Your task to perform on an android device: turn pop-ups on in chrome Image 0: 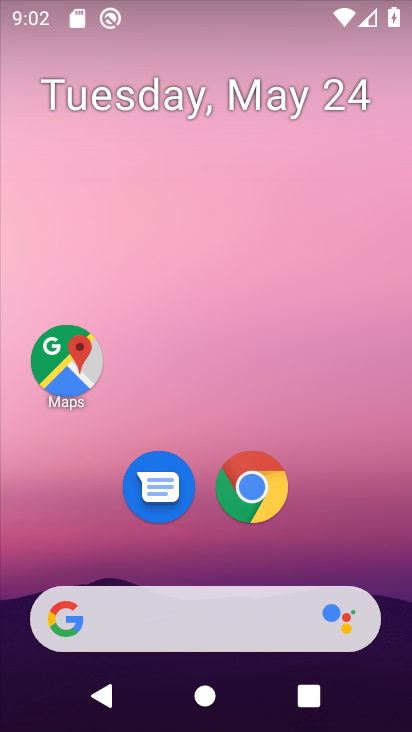
Step 0: click (246, 495)
Your task to perform on an android device: turn pop-ups on in chrome Image 1: 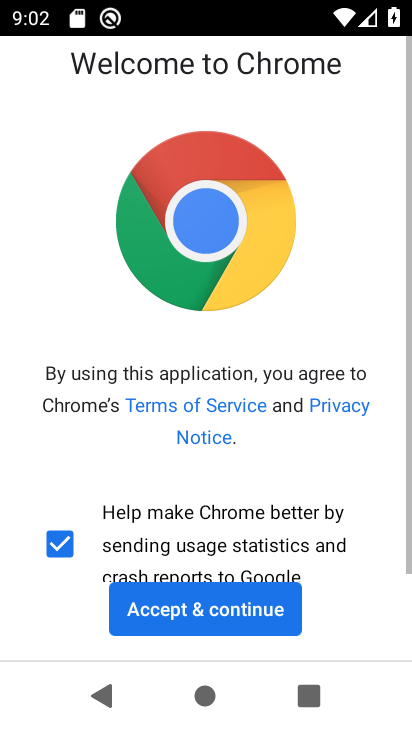
Step 1: click (211, 599)
Your task to perform on an android device: turn pop-ups on in chrome Image 2: 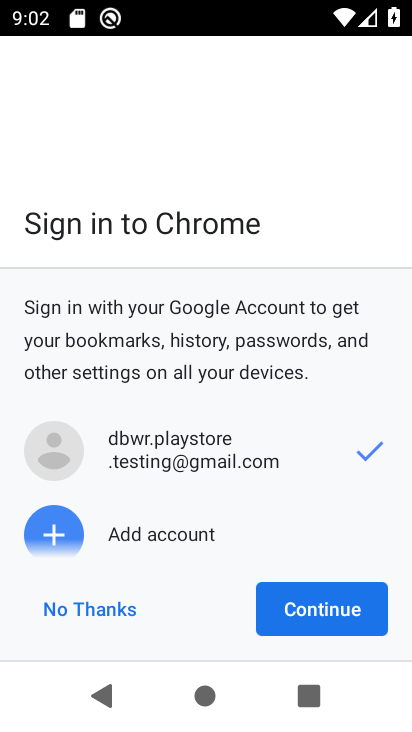
Step 2: click (317, 606)
Your task to perform on an android device: turn pop-ups on in chrome Image 3: 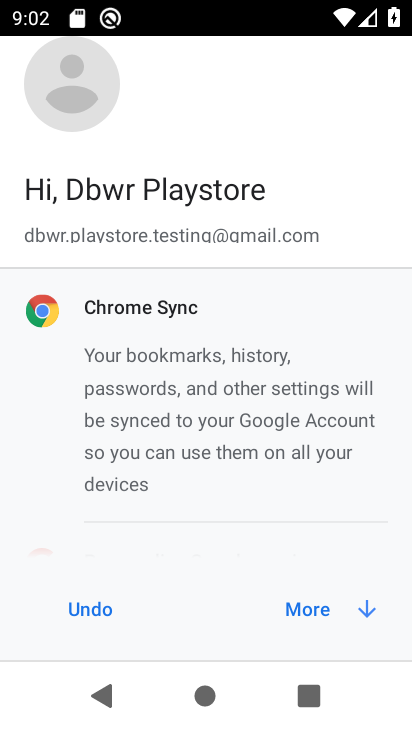
Step 3: click (317, 606)
Your task to perform on an android device: turn pop-ups on in chrome Image 4: 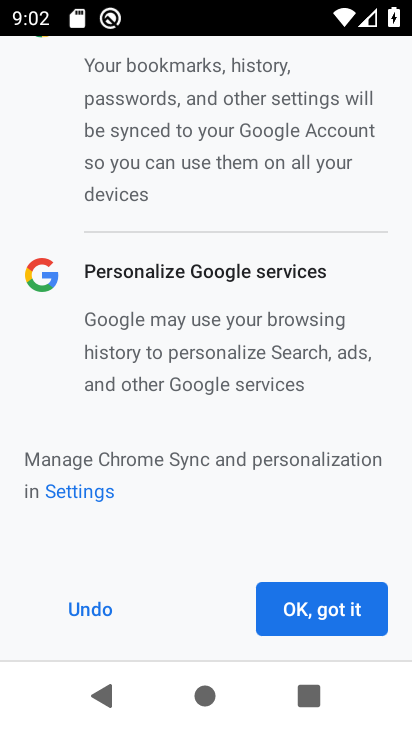
Step 4: click (317, 606)
Your task to perform on an android device: turn pop-ups on in chrome Image 5: 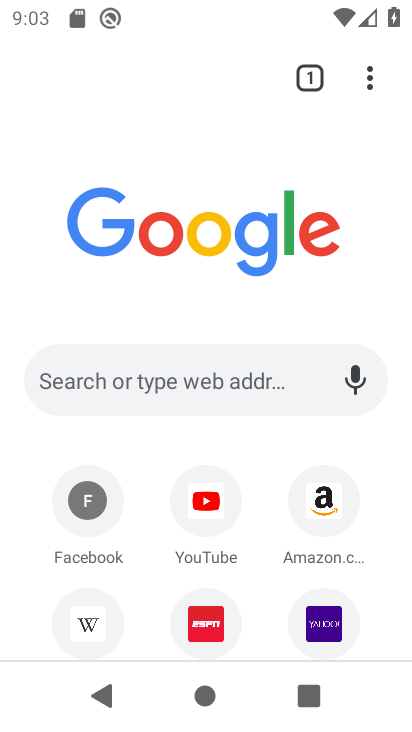
Step 5: drag from (367, 79) to (177, 557)
Your task to perform on an android device: turn pop-ups on in chrome Image 6: 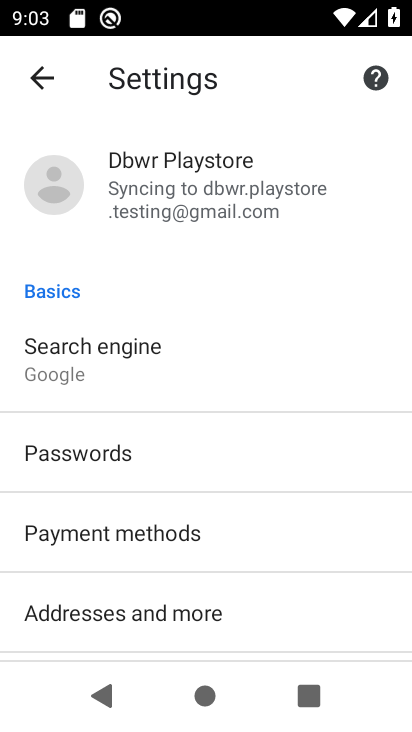
Step 6: drag from (166, 630) to (247, 159)
Your task to perform on an android device: turn pop-ups on in chrome Image 7: 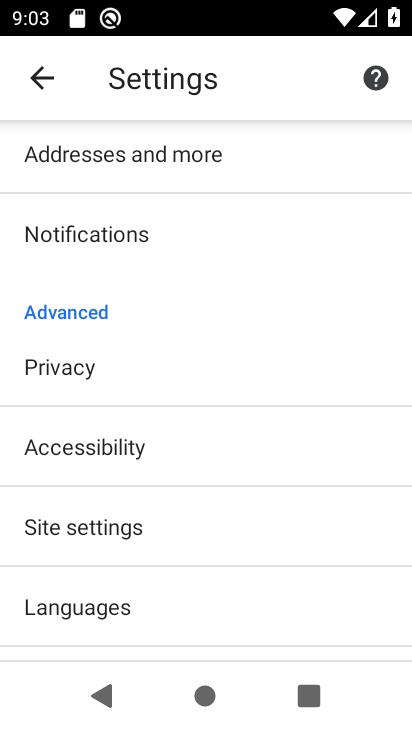
Step 7: drag from (156, 582) to (274, 194)
Your task to perform on an android device: turn pop-ups on in chrome Image 8: 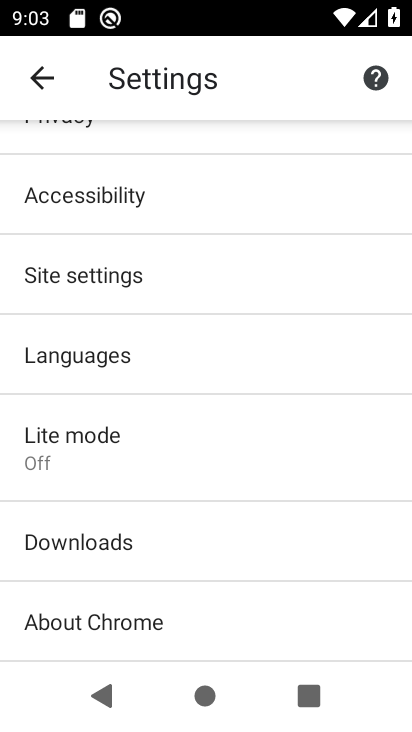
Step 8: click (116, 289)
Your task to perform on an android device: turn pop-ups on in chrome Image 9: 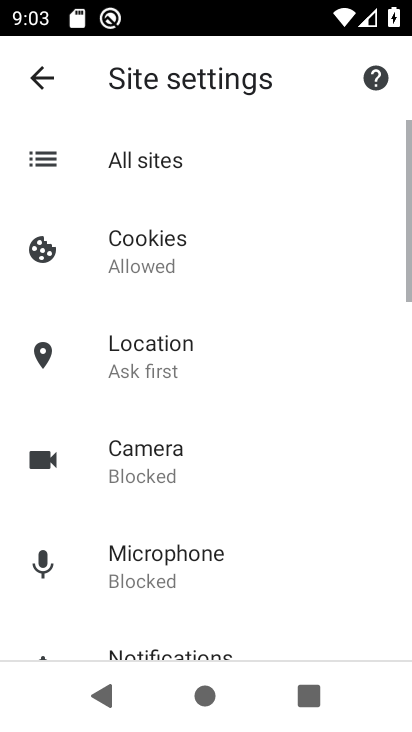
Step 9: drag from (201, 638) to (248, 141)
Your task to perform on an android device: turn pop-ups on in chrome Image 10: 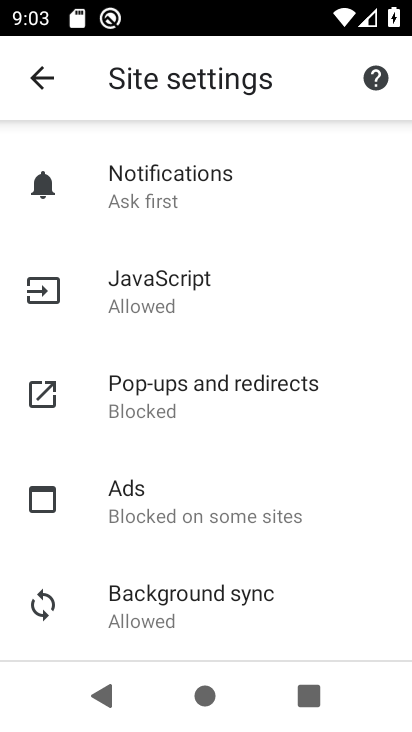
Step 10: click (178, 405)
Your task to perform on an android device: turn pop-ups on in chrome Image 11: 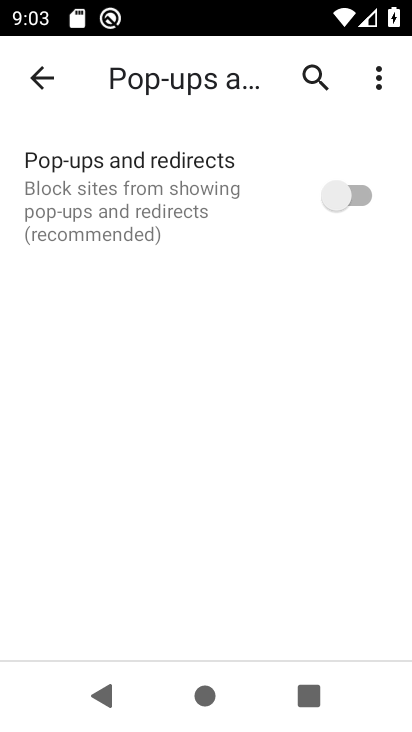
Step 11: click (361, 193)
Your task to perform on an android device: turn pop-ups on in chrome Image 12: 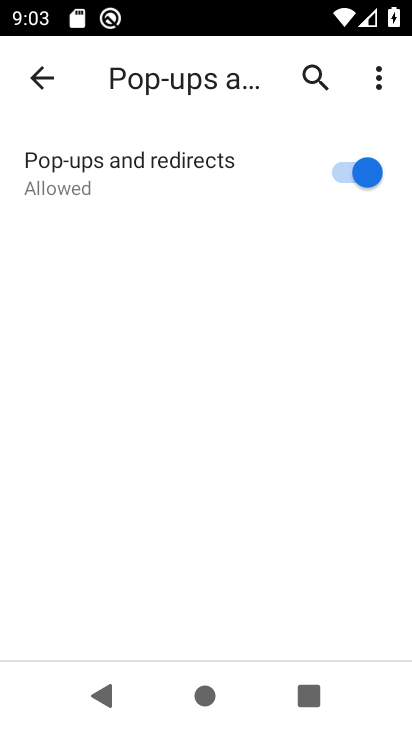
Step 12: task complete